Your task to perform on an android device: Clear the cart on amazon. Add "apple airpods pro" to the cart on amazon, then select checkout. Image 0: 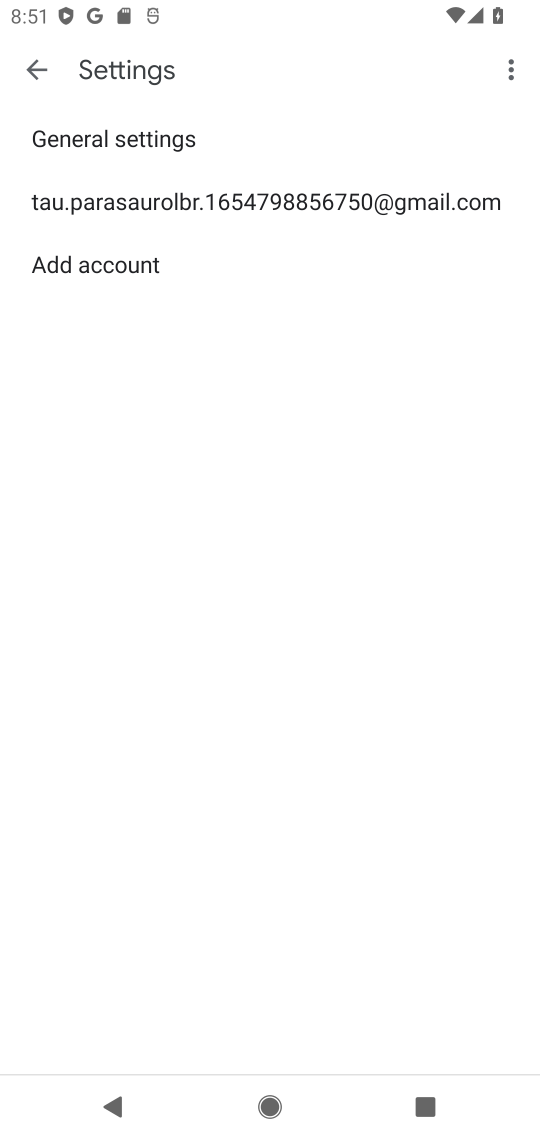
Step 0: press home button
Your task to perform on an android device: Clear the cart on amazon. Add "apple airpods pro" to the cart on amazon, then select checkout. Image 1: 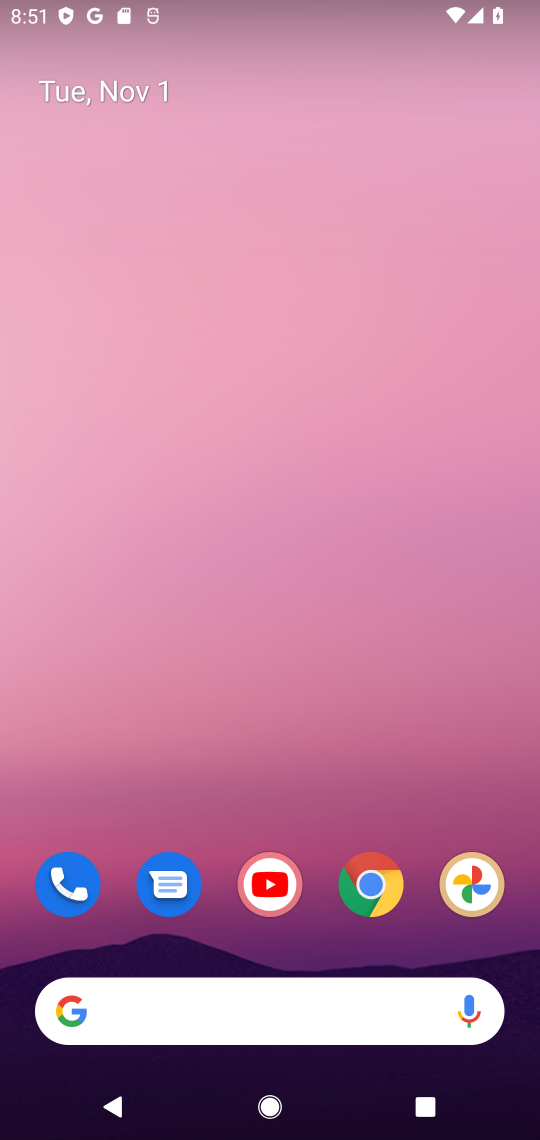
Step 1: click (373, 880)
Your task to perform on an android device: Clear the cart on amazon. Add "apple airpods pro" to the cart on amazon, then select checkout. Image 2: 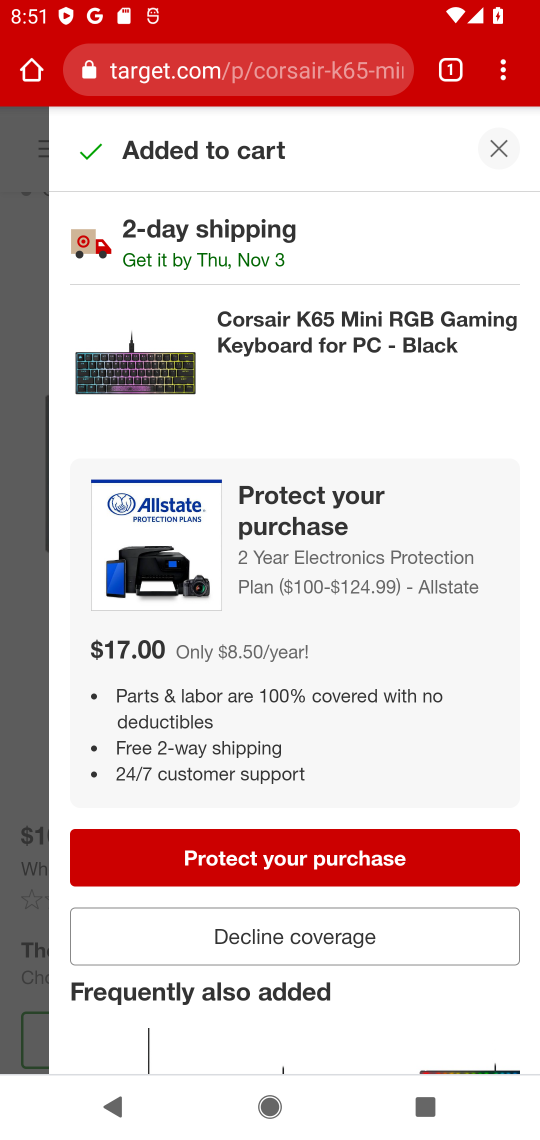
Step 2: click (330, 62)
Your task to perform on an android device: Clear the cart on amazon. Add "apple airpods pro" to the cart on amazon, then select checkout. Image 3: 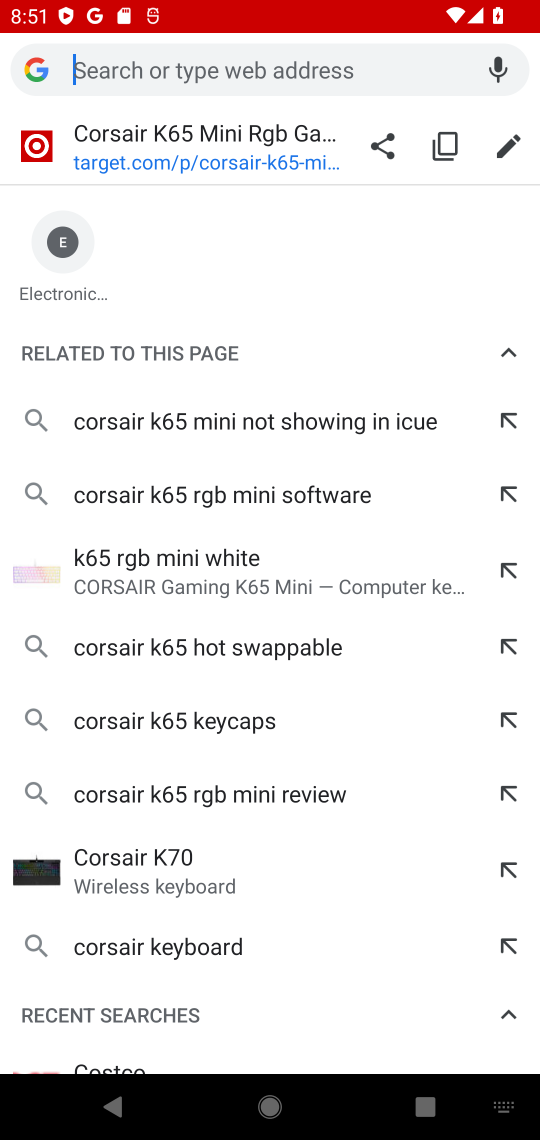
Step 3: type "amazon"
Your task to perform on an android device: Clear the cart on amazon. Add "apple airpods pro" to the cart on amazon, then select checkout. Image 4: 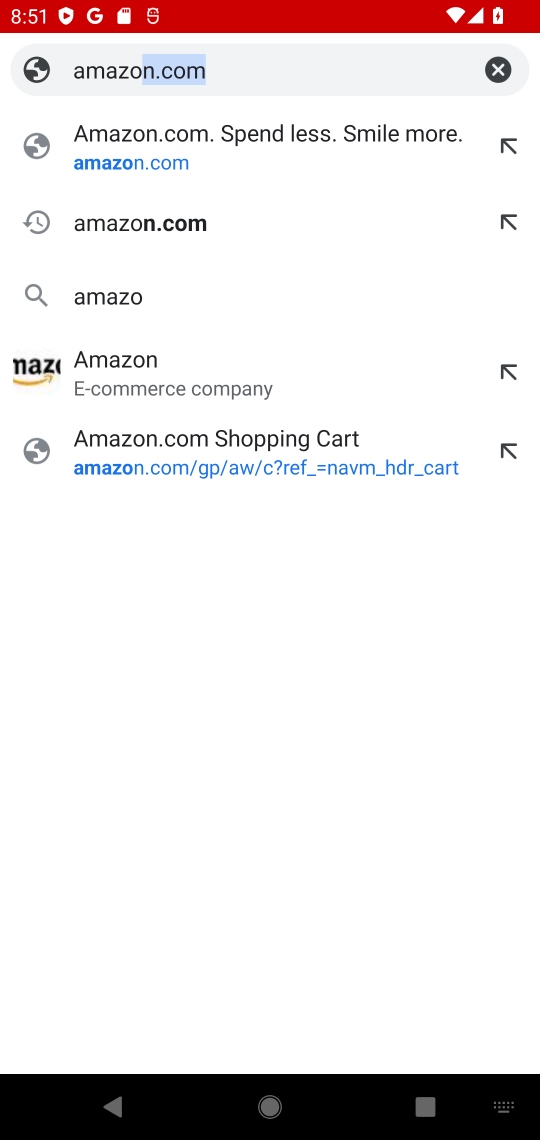
Step 4: press enter
Your task to perform on an android device: Clear the cart on amazon. Add "apple airpods pro" to the cart on amazon, then select checkout. Image 5: 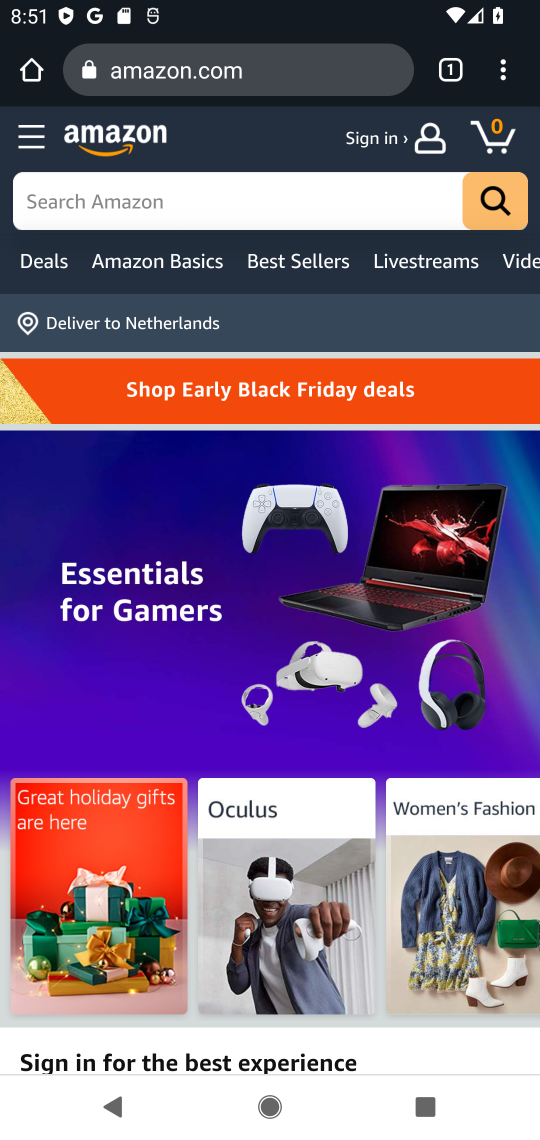
Step 5: click (501, 143)
Your task to perform on an android device: Clear the cart on amazon. Add "apple airpods pro" to the cart on amazon, then select checkout. Image 6: 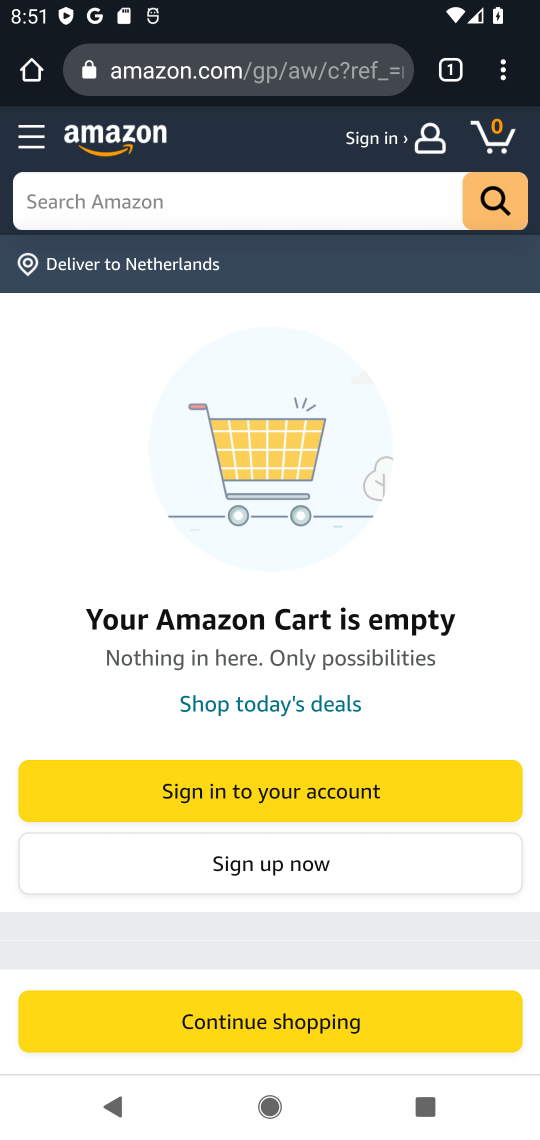
Step 6: click (303, 191)
Your task to perform on an android device: Clear the cart on amazon. Add "apple airpods pro" to the cart on amazon, then select checkout. Image 7: 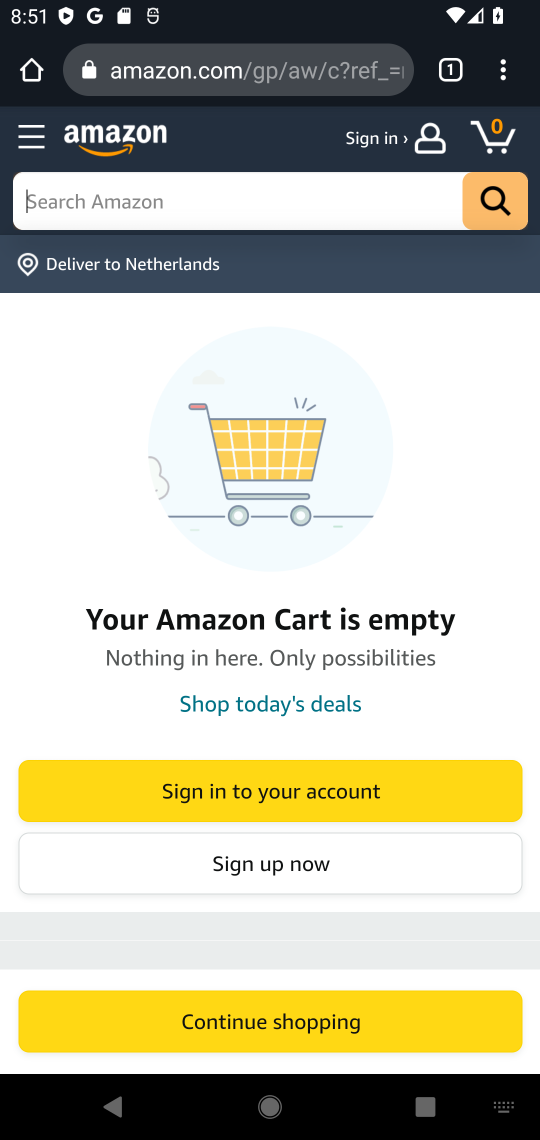
Step 7: type "apple airpods pro"
Your task to perform on an android device: Clear the cart on amazon. Add "apple airpods pro" to the cart on amazon, then select checkout. Image 8: 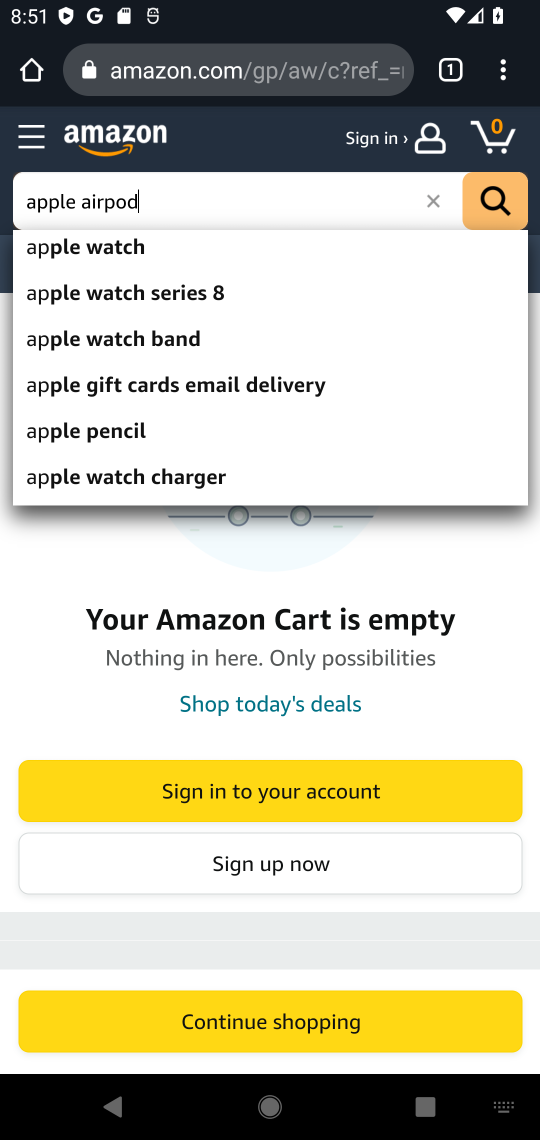
Step 8: press enter
Your task to perform on an android device: Clear the cart on amazon. Add "apple airpods pro" to the cart on amazon, then select checkout. Image 9: 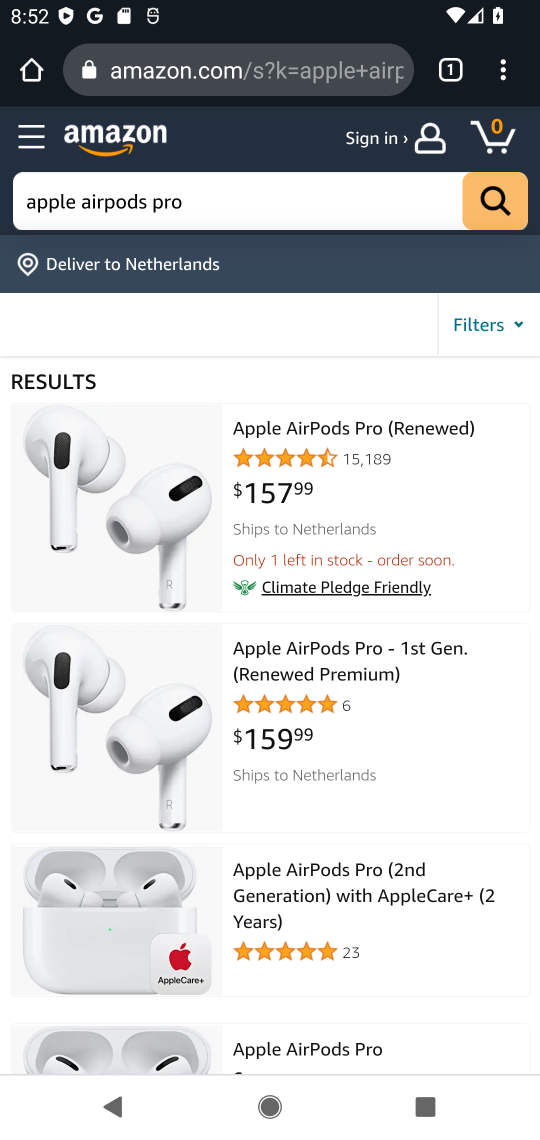
Step 9: click (95, 457)
Your task to perform on an android device: Clear the cart on amazon. Add "apple airpods pro" to the cart on amazon, then select checkout. Image 10: 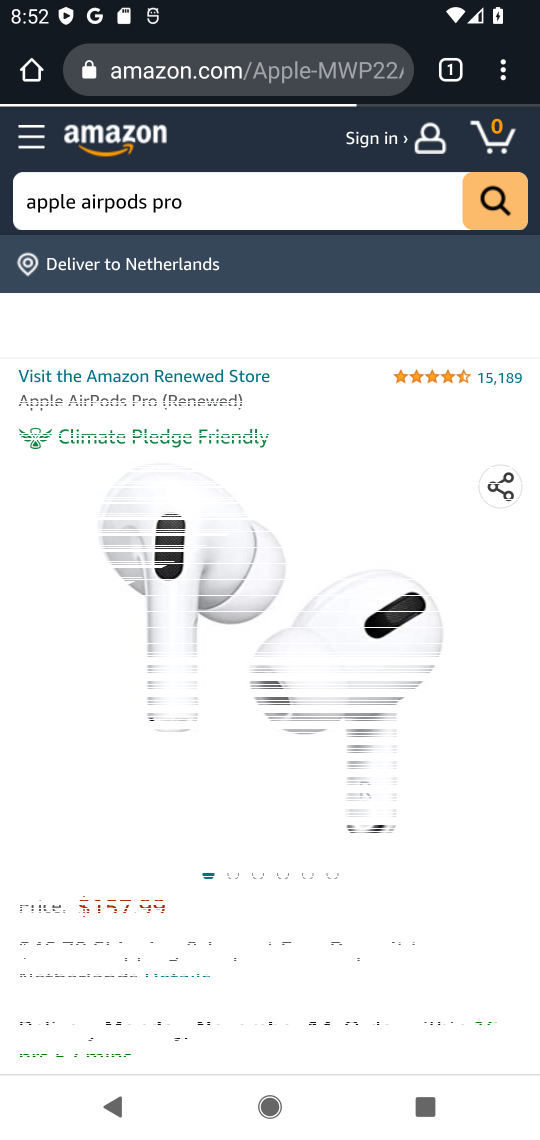
Step 10: drag from (335, 949) to (263, 306)
Your task to perform on an android device: Clear the cart on amazon. Add "apple airpods pro" to the cart on amazon, then select checkout. Image 11: 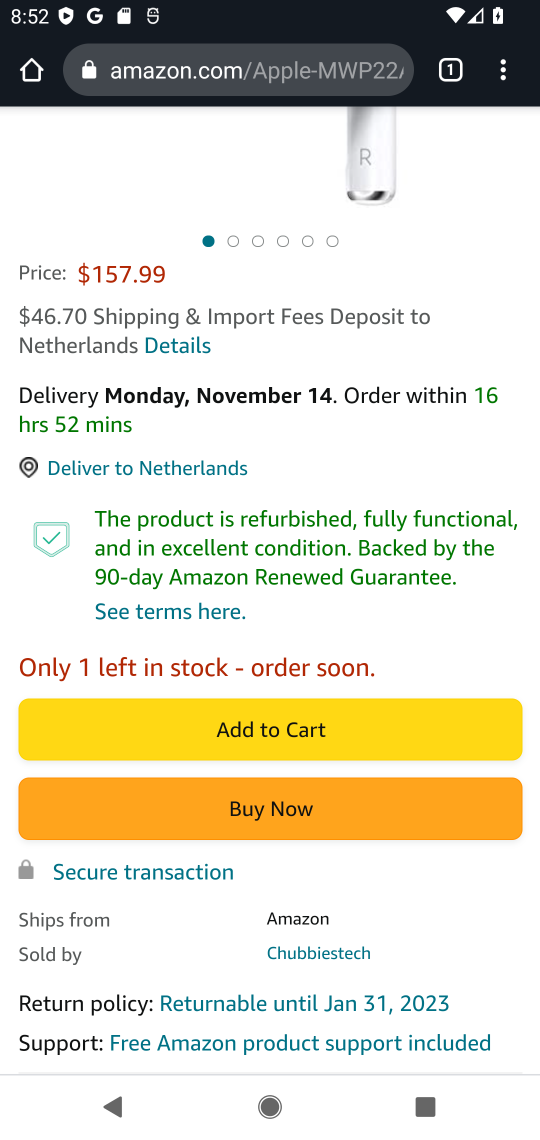
Step 11: click (251, 724)
Your task to perform on an android device: Clear the cart on amazon. Add "apple airpods pro" to the cart on amazon, then select checkout. Image 12: 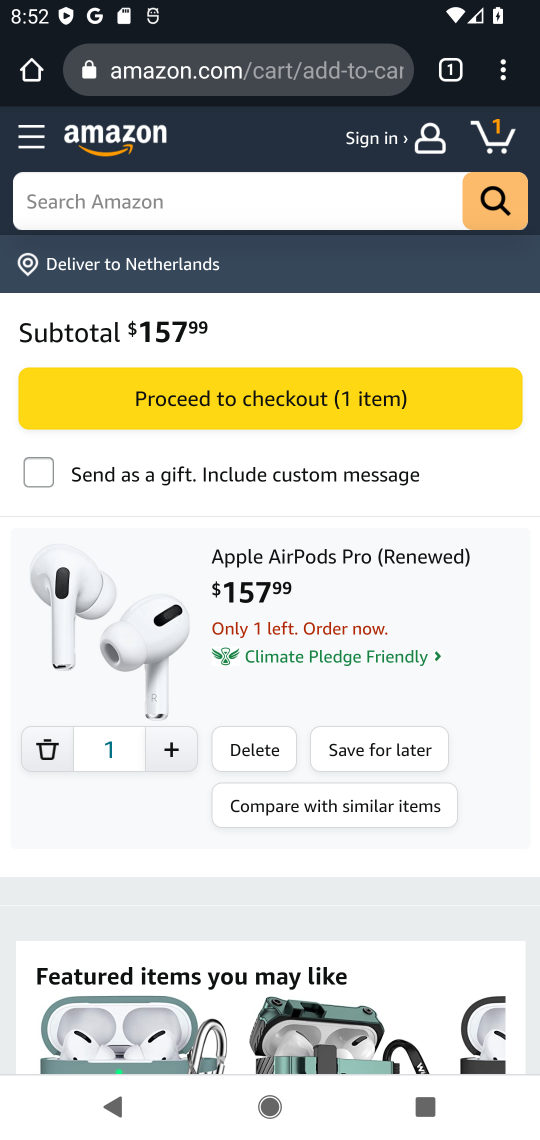
Step 12: click (276, 385)
Your task to perform on an android device: Clear the cart on amazon. Add "apple airpods pro" to the cart on amazon, then select checkout. Image 13: 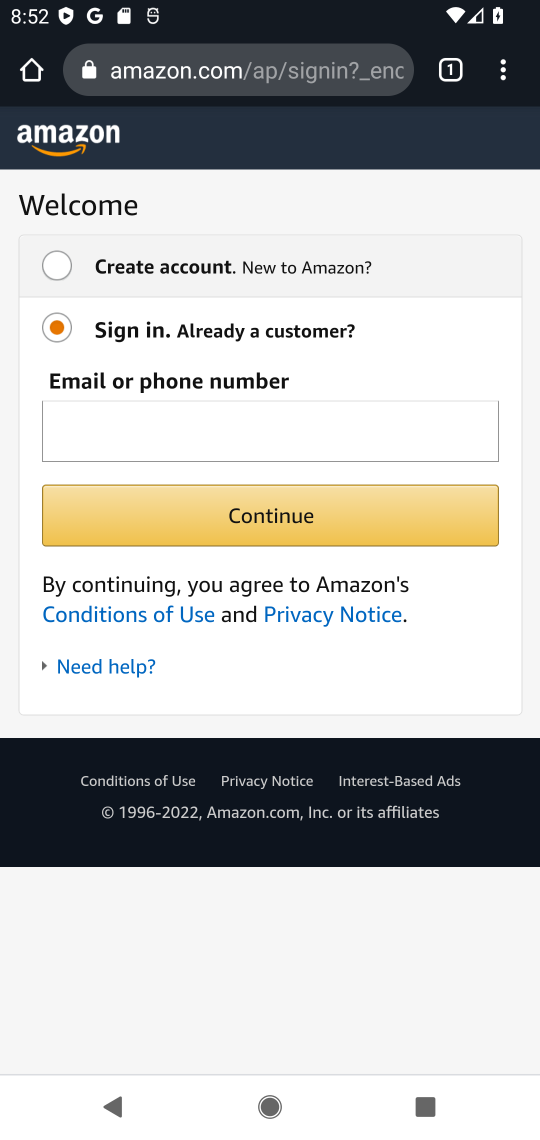
Step 13: task complete